Your task to perform on an android device: turn off location Image 0: 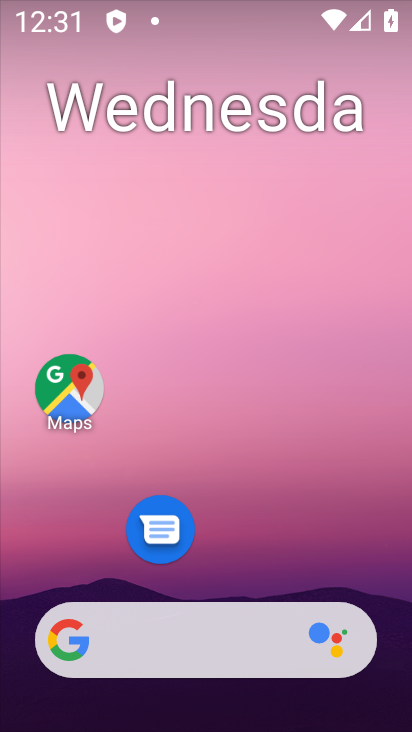
Step 0: drag from (237, 579) to (394, 265)
Your task to perform on an android device: turn off location Image 1: 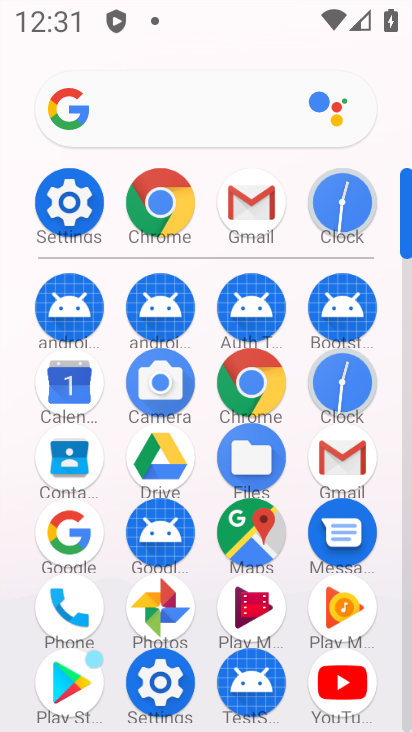
Step 1: click (71, 195)
Your task to perform on an android device: turn off location Image 2: 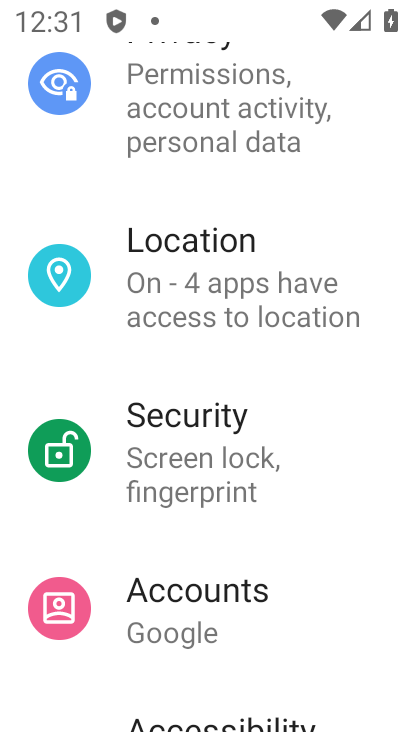
Step 2: click (166, 351)
Your task to perform on an android device: turn off location Image 3: 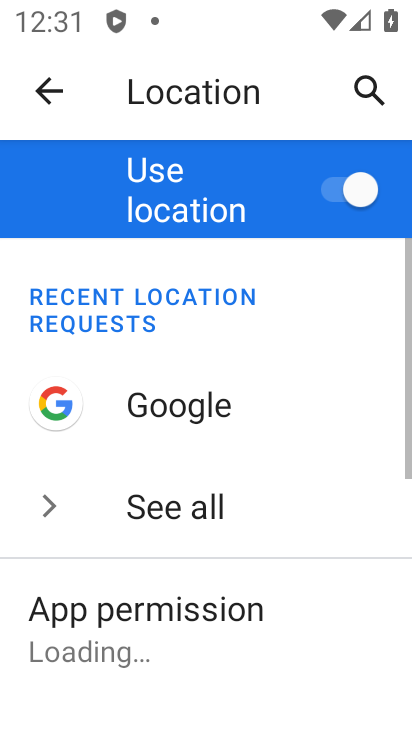
Step 3: click (334, 193)
Your task to perform on an android device: turn off location Image 4: 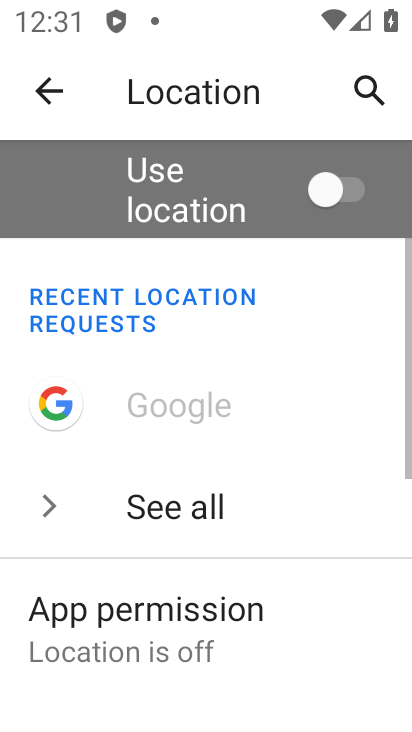
Step 4: task complete